Your task to perform on an android device: turn off priority inbox in the gmail app Image 0: 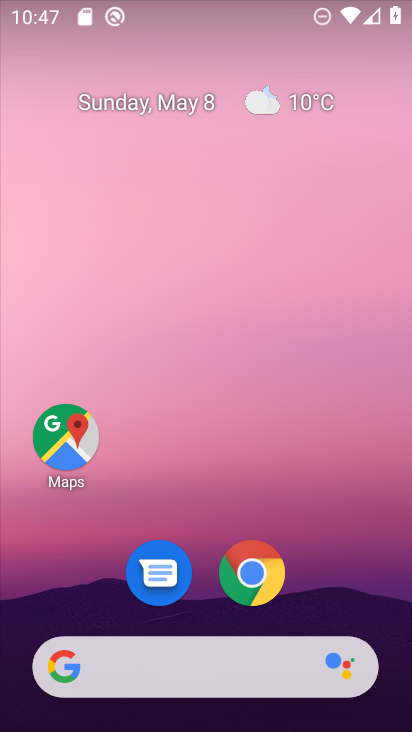
Step 0: drag from (302, 579) to (312, 122)
Your task to perform on an android device: turn off priority inbox in the gmail app Image 1: 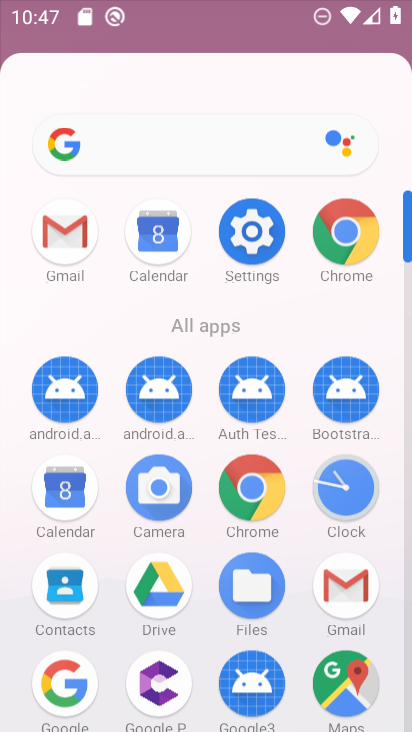
Step 1: click (312, 123)
Your task to perform on an android device: turn off priority inbox in the gmail app Image 2: 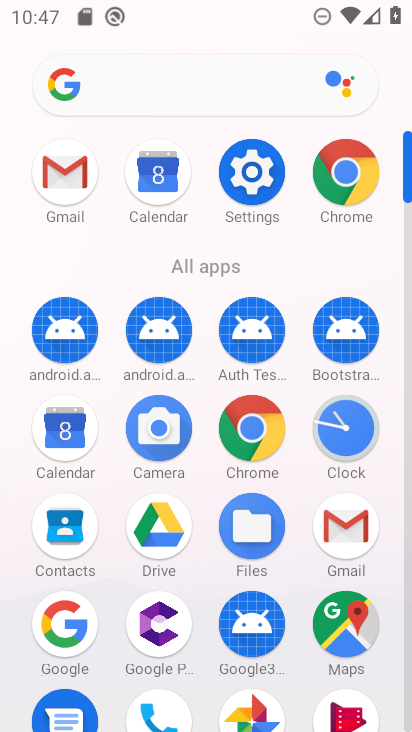
Step 2: click (362, 513)
Your task to perform on an android device: turn off priority inbox in the gmail app Image 3: 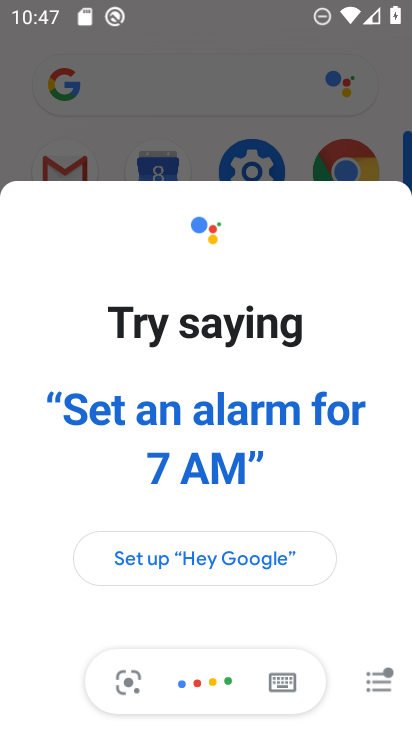
Step 3: click (211, 96)
Your task to perform on an android device: turn off priority inbox in the gmail app Image 4: 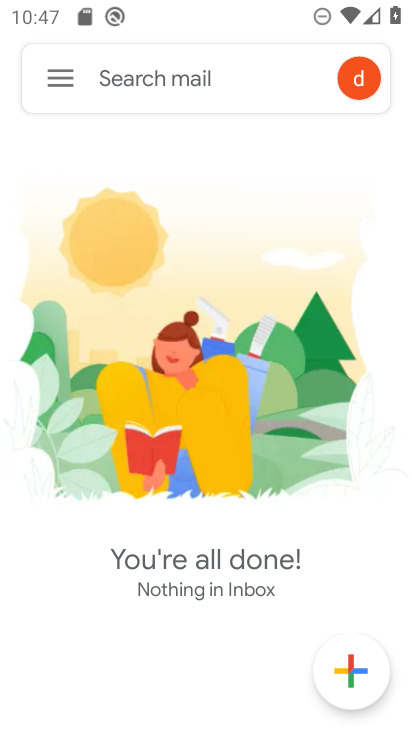
Step 4: click (60, 79)
Your task to perform on an android device: turn off priority inbox in the gmail app Image 5: 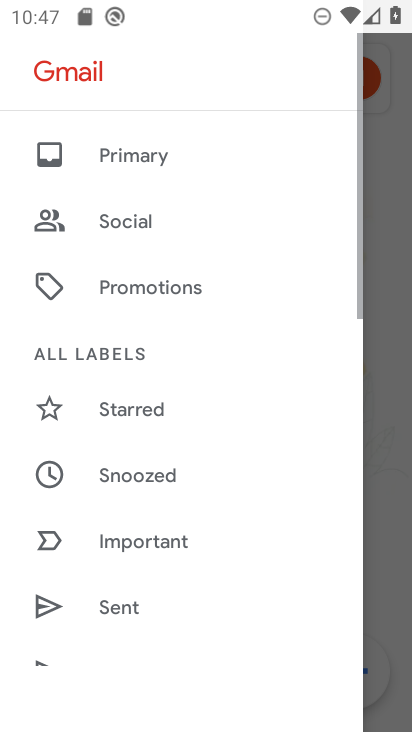
Step 5: drag from (76, 590) to (86, 431)
Your task to perform on an android device: turn off priority inbox in the gmail app Image 6: 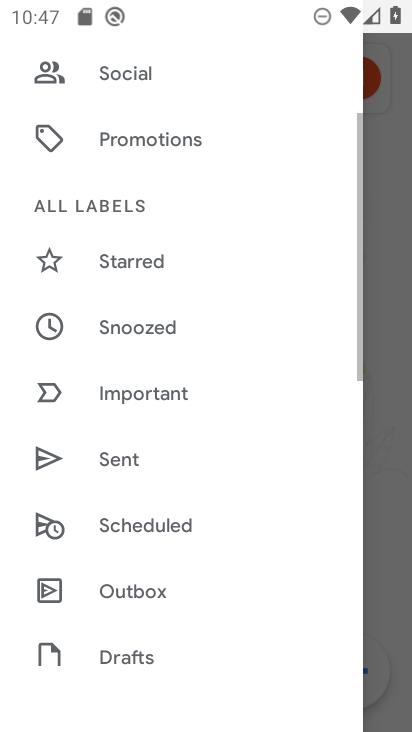
Step 6: drag from (86, 431) to (90, 93)
Your task to perform on an android device: turn off priority inbox in the gmail app Image 7: 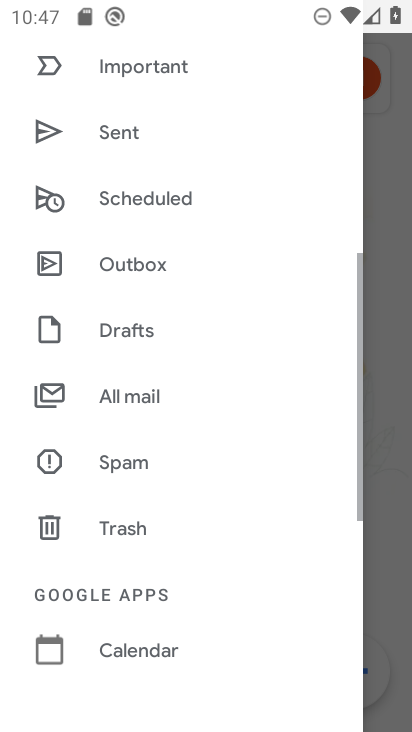
Step 7: drag from (90, 93) to (94, 20)
Your task to perform on an android device: turn off priority inbox in the gmail app Image 8: 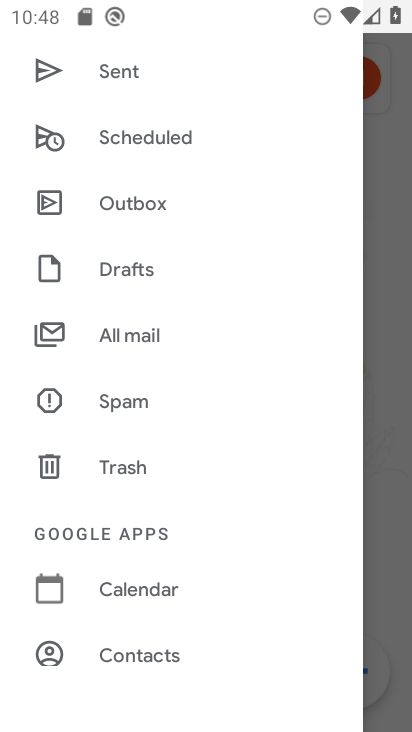
Step 8: drag from (136, 571) to (147, 313)
Your task to perform on an android device: turn off priority inbox in the gmail app Image 9: 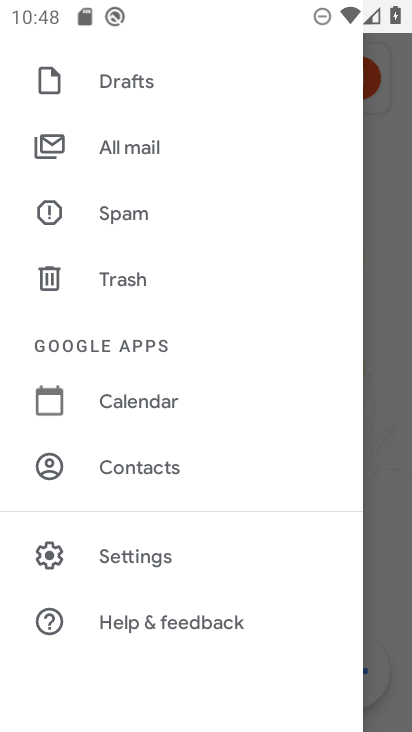
Step 9: click (107, 549)
Your task to perform on an android device: turn off priority inbox in the gmail app Image 10: 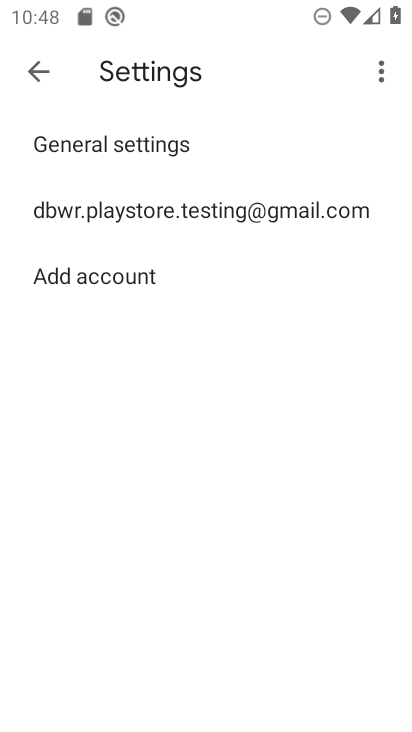
Step 10: click (182, 208)
Your task to perform on an android device: turn off priority inbox in the gmail app Image 11: 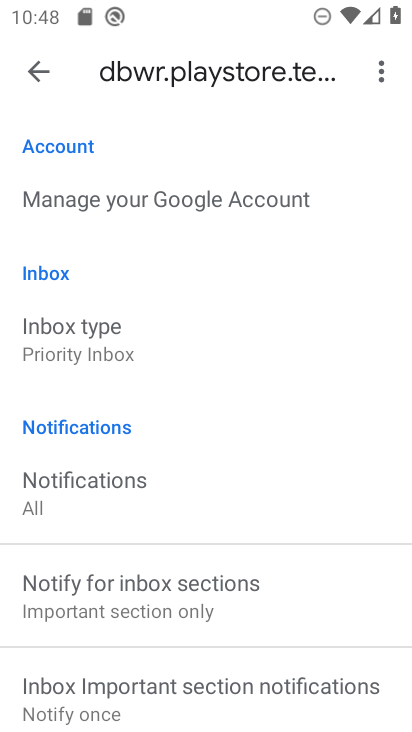
Step 11: click (115, 354)
Your task to perform on an android device: turn off priority inbox in the gmail app Image 12: 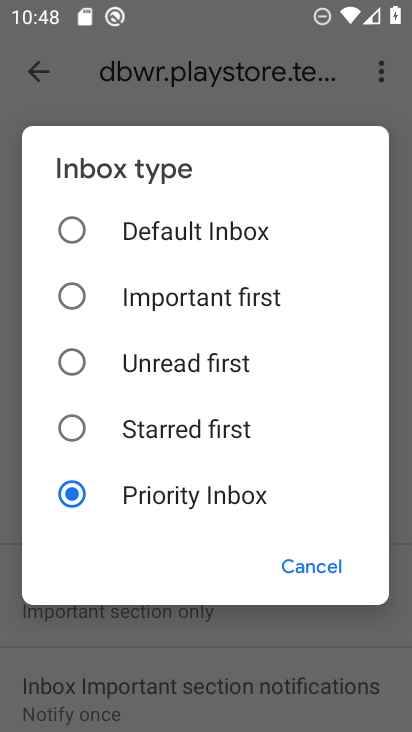
Step 12: click (136, 228)
Your task to perform on an android device: turn off priority inbox in the gmail app Image 13: 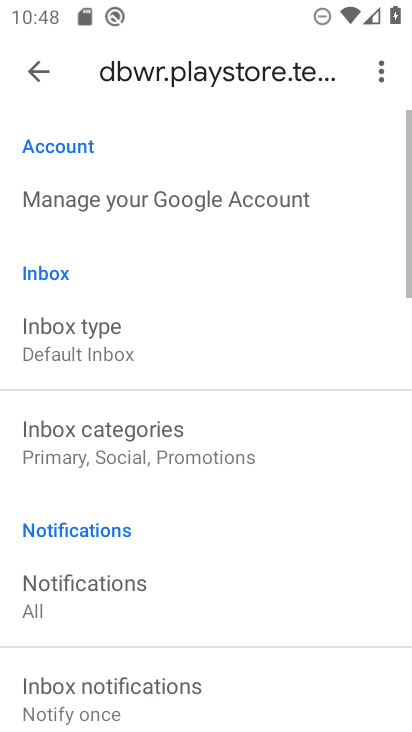
Step 13: task complete